Your task to perform on an android device: check battery use Image 0: 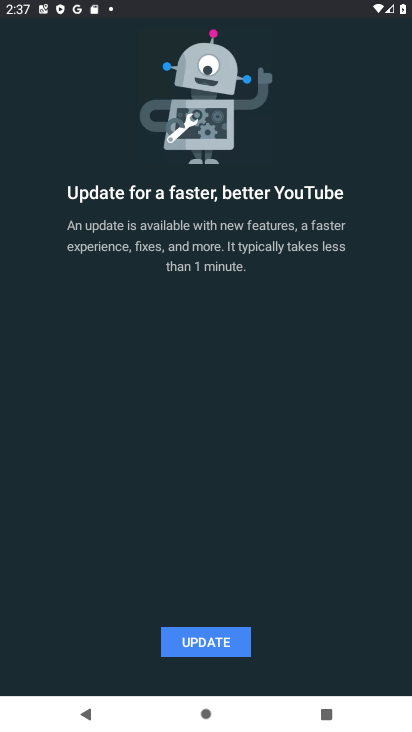
Step 0: press home button
Your task to perform on an android device: check battery use Image 1: 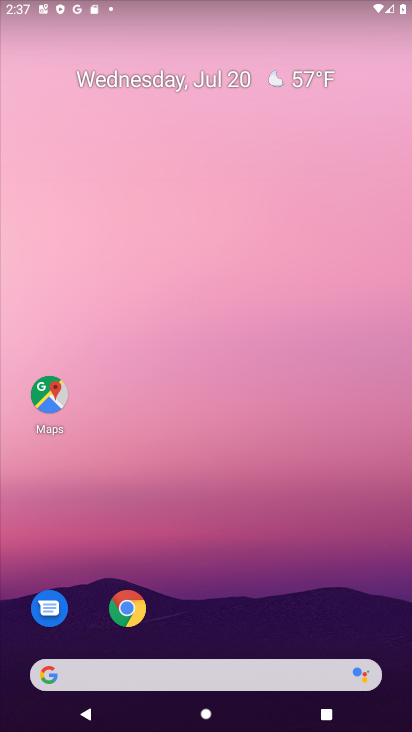
Step 1: drag from (182, 593) to (188, 57)
Your task to perform on an android device: check battery use Image 2: 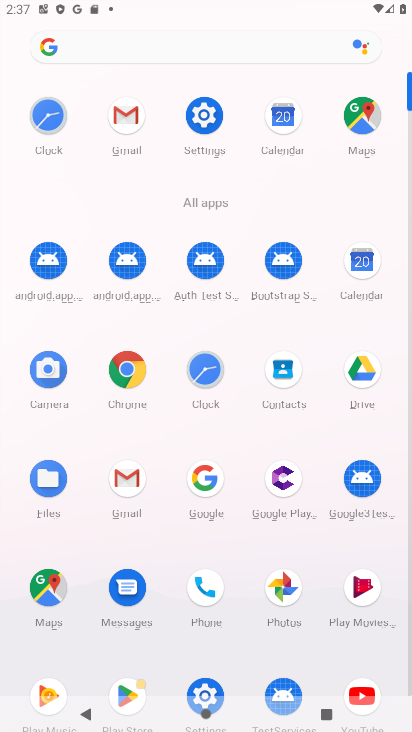
Step 2: click (214, 121)
Your task to perform on an android device: check battery use Image 3: 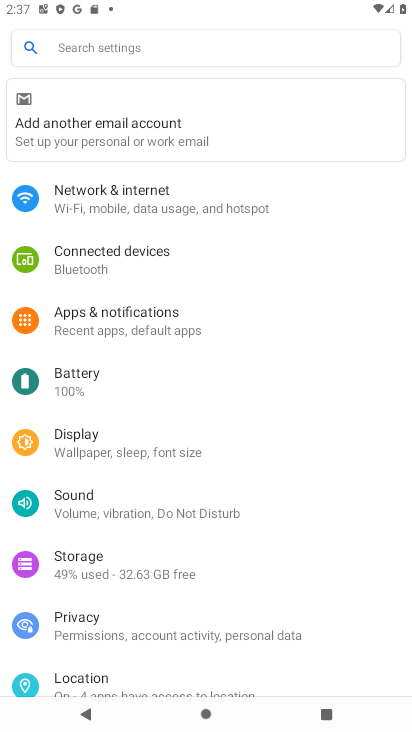
Step 3: click (76, 370)
Your task to perform on an android device: check battery use Image 4: 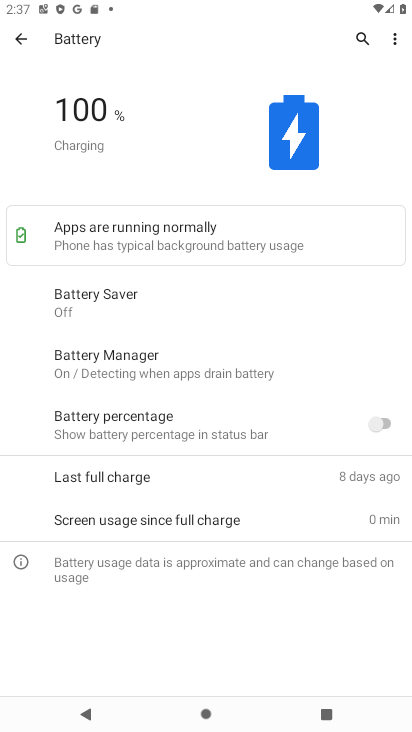
Step 4: task complete